Your task to perform on an android device: turn off data saver in the chrome app Image 0: 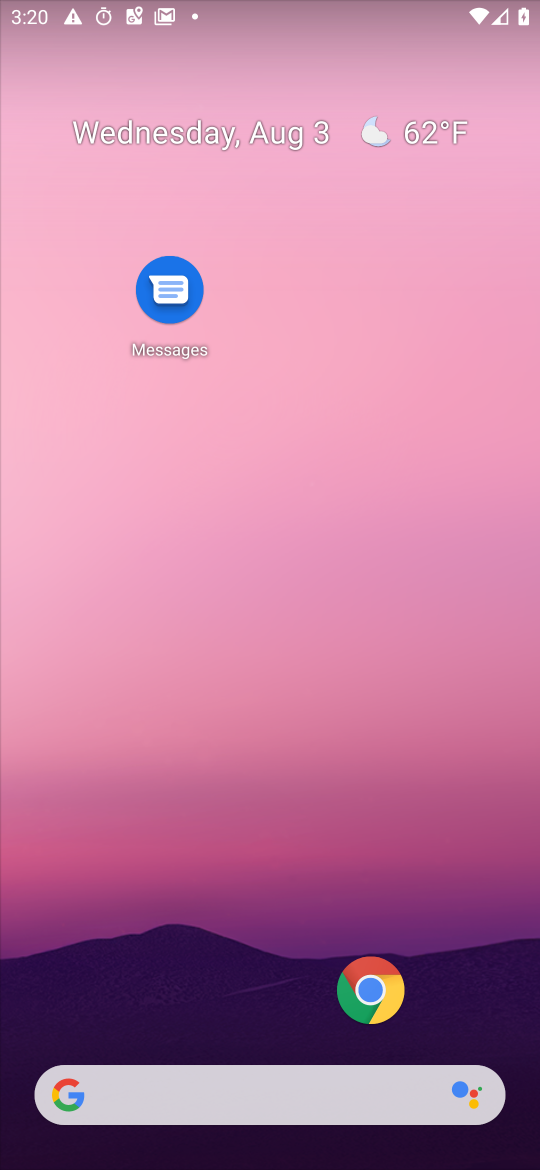
Step 0: click (368, 999)
Your task to perform on an android device: turn off data saver in the chrome app Image 1: 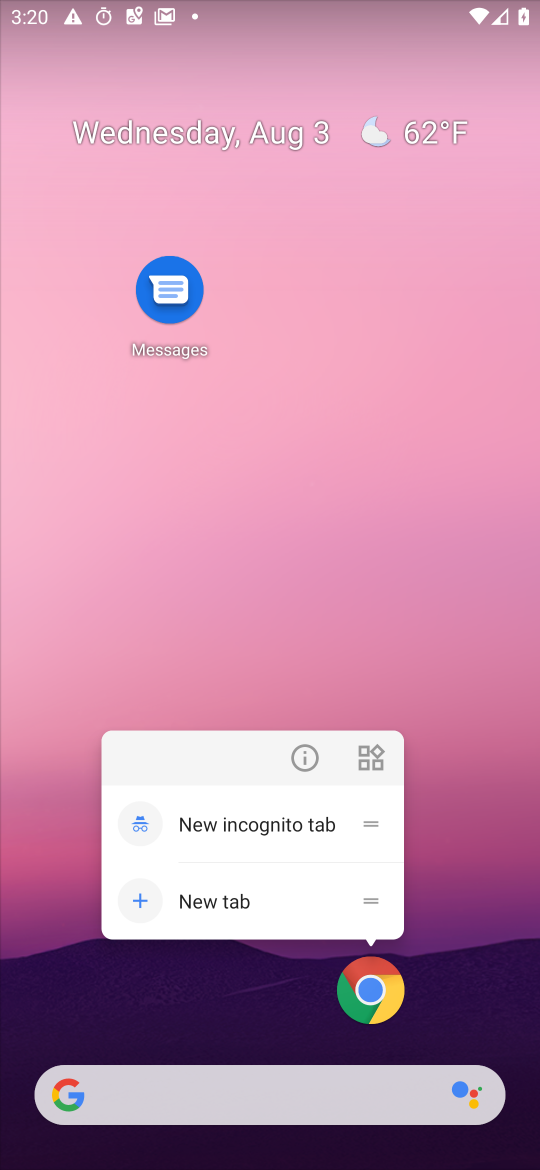
Step 1: click (370, 991)
Your task to perform on an android device: turn off data saver in the chrome app Image 2: 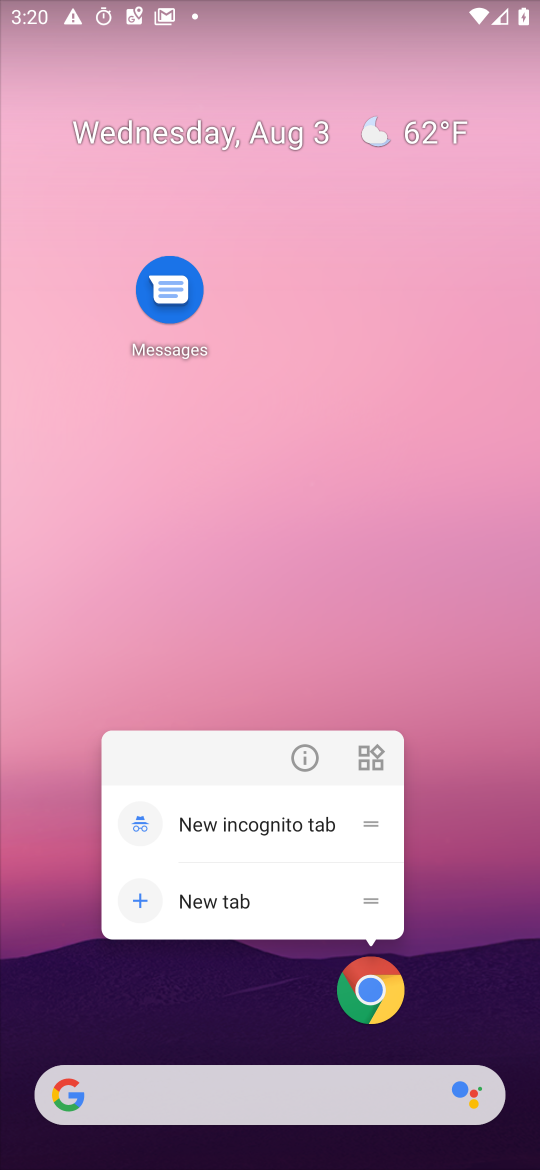
Step 2: click (370, 991)
Your task to perform on an android device: turn off data saver in the chrome app Image 3: 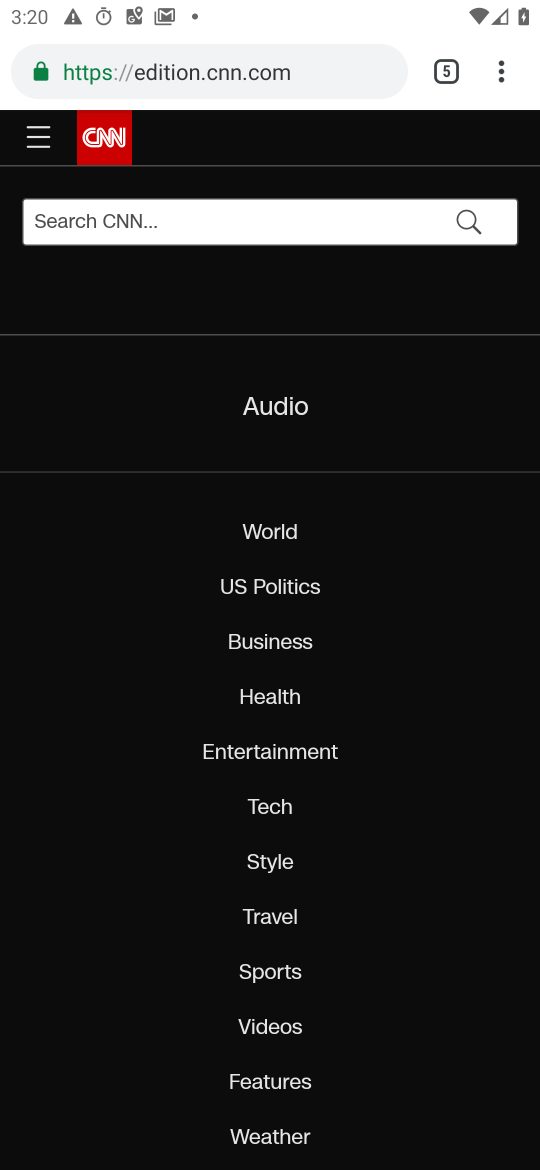
Step 3: click (506, 83)
Your task to perform on an android device: turn off data saver in the chrome app Image 4: 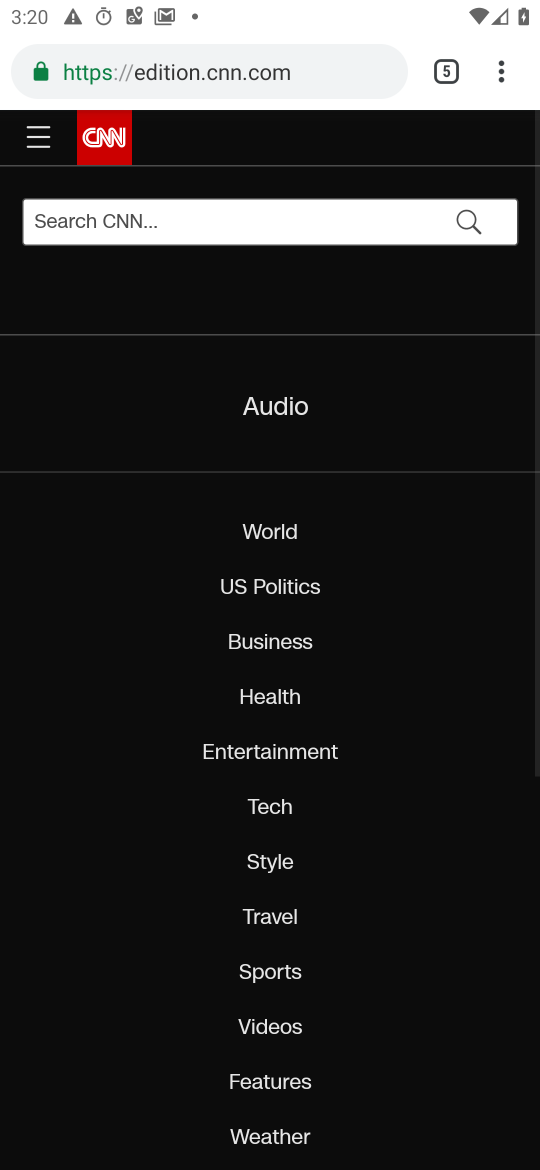
Step 4: click (479, 69)
Your task to perform on an android device: turn off data saver in the chrome app Image 5: 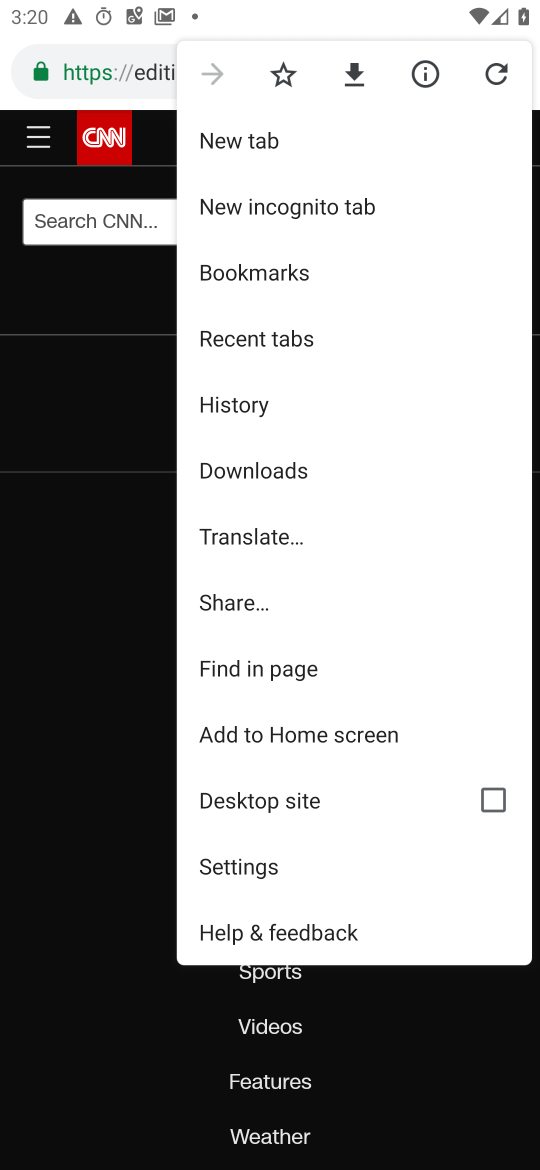
Step 5: click (260, 861)
Your task to perform on an android device: turn off data saver in the chrome app Image 6: 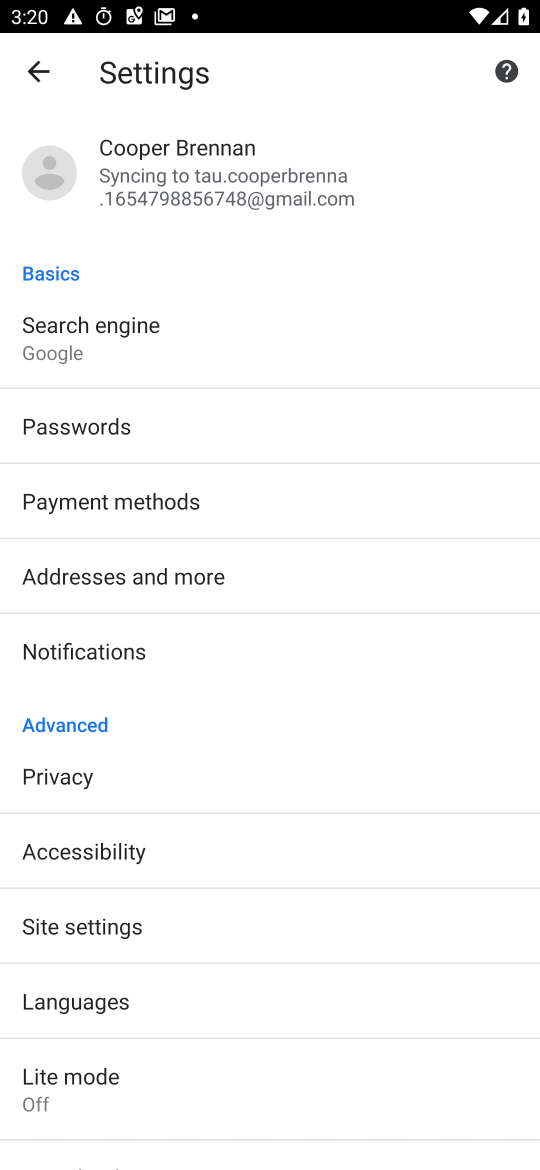
Step 6: click (83, 1087)
Your task to perform on an android device: turn off data saver in the chrome app Image 7: 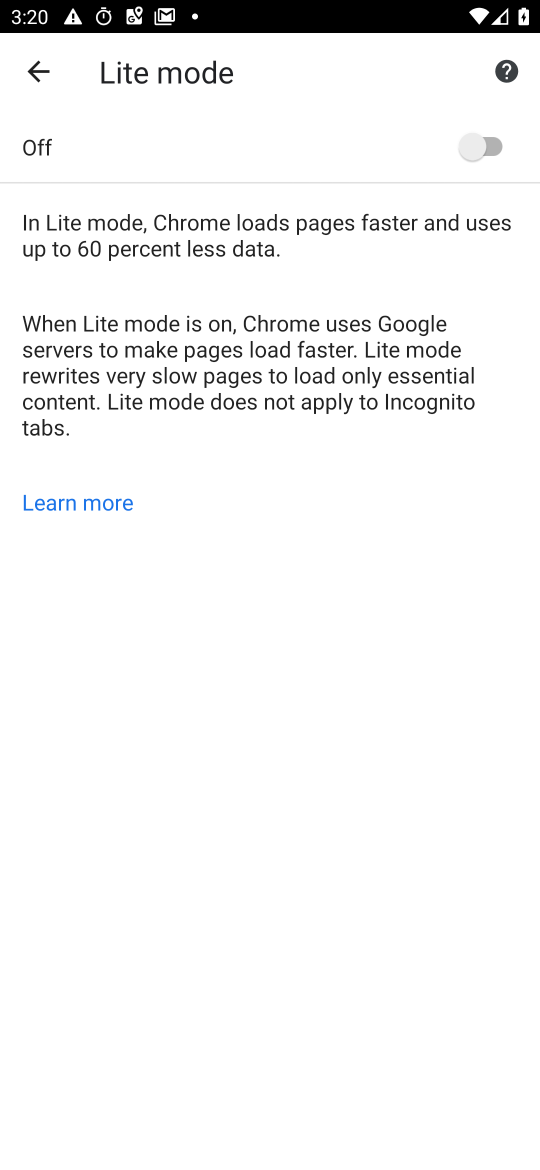
Step 7: task complete